Your task to perform on an android device: Open Chrome and go to settings Image 0: 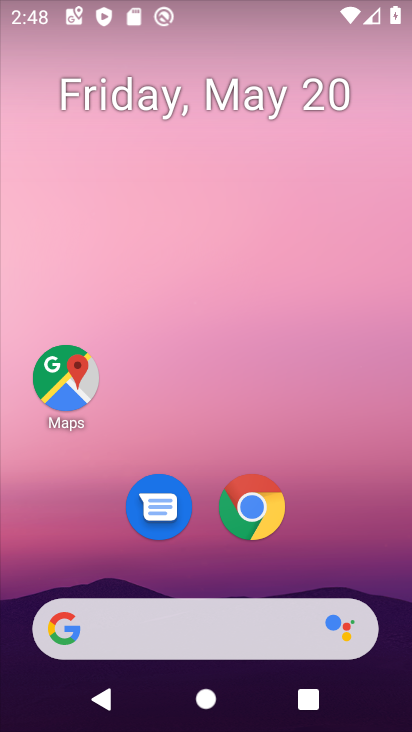
Step 0: click (253, 508)
Your task to perform on an android device: Open Chrome and go to settings Image 1: 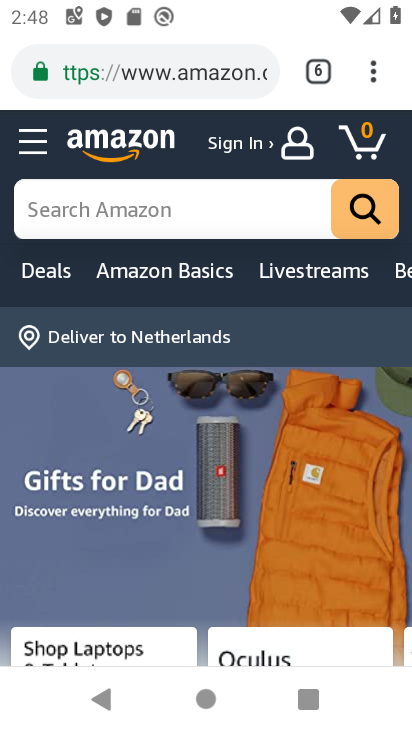
Step 1: click (376, 75)
Your task to perform on an android device: Open Chrome and go to settings Image 2: 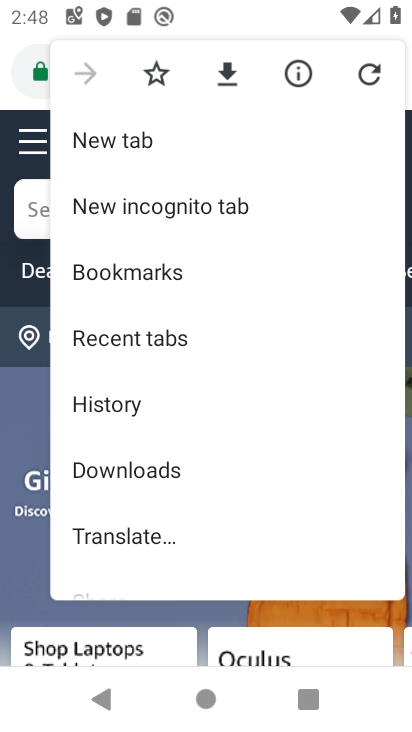
Step 2: drag from (168, 520) to (148, 142)
Your task to perform on an android device: Open Chrome and go to settings Image 3: 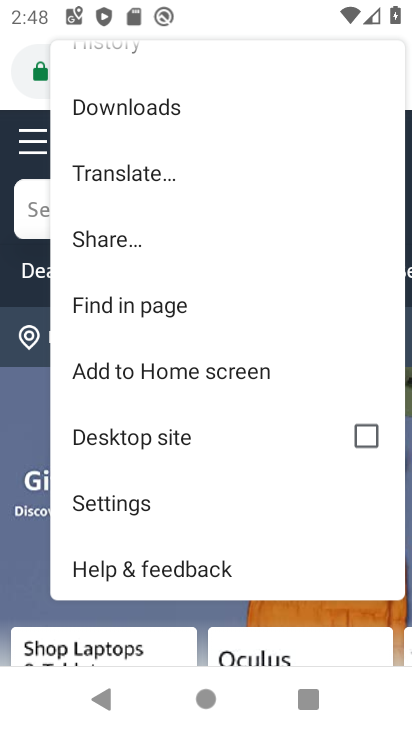
Step 3: click (127, 505)
Your task to perform on an android device: Open Chrome and go to settings Image 4: 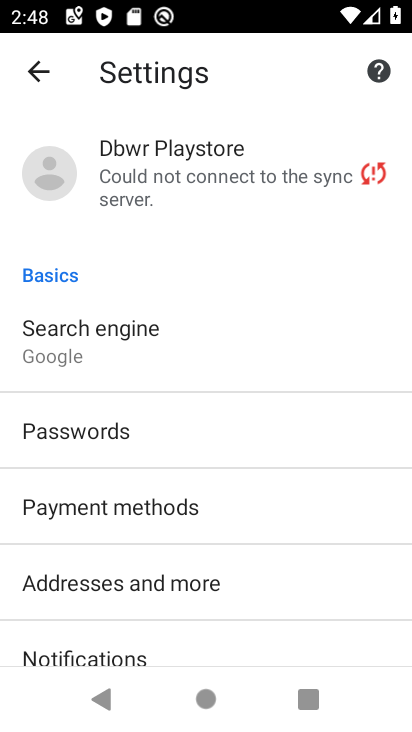
Step 4: task complete